Your task to perform on an android device: search for starred emails in the gmail app Image 0: 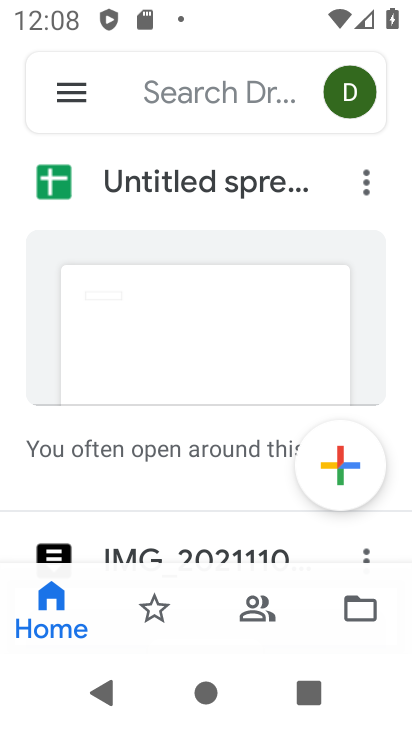
Step 0: press home button
Your task to perform on an android device: search for starred emails in the gmail app Image 1: 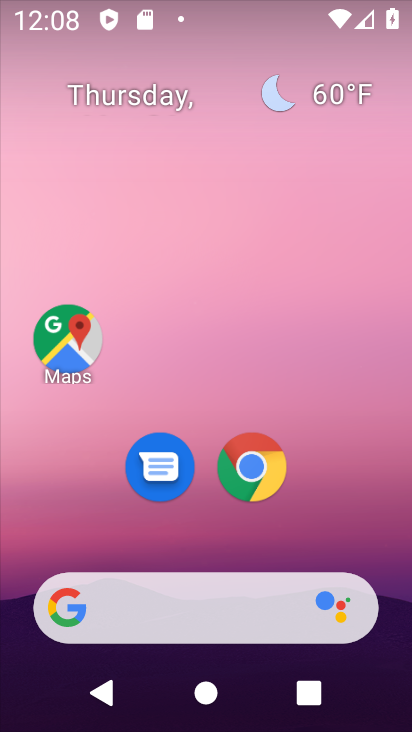
Step 1: drag from (220, 460) to (261, 105)
Your task to perform on an android device: search for starred emails in the gmail app Image 2: 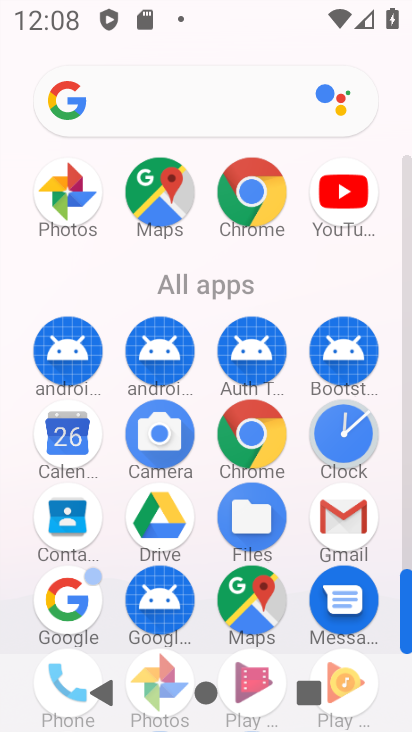
Step 2: click (343, 515)
Your task to perform on an android device: search for starred emails in the gmail app Image 3: 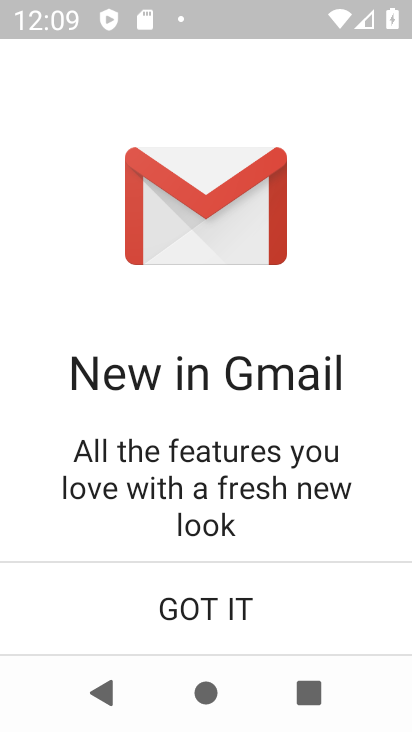
Step 3: click (243, 603)
Your task to perform on an android device: search for starred emails in the gmail app Image 4: 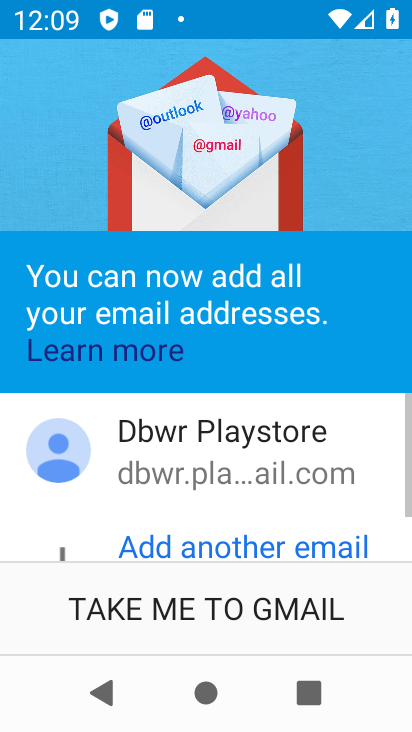
Step 4: click (239, 607)
Your task to perform on an android device: search for starred emails in the gmail app Image 5: 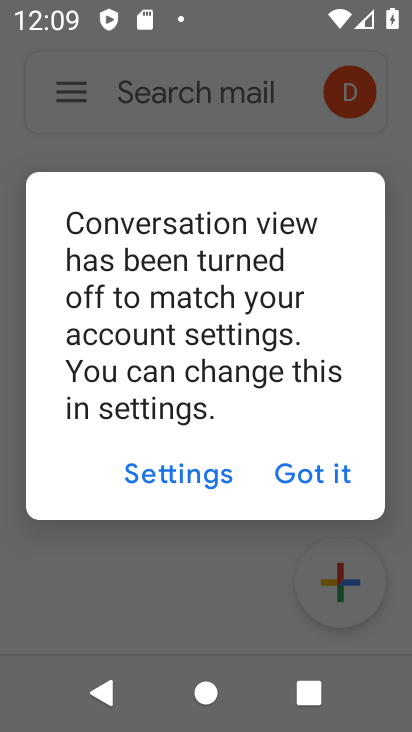
Step 5: click (330, 467)
Your task to perform on an android device: search for starred emails in the gmail app Image 6: 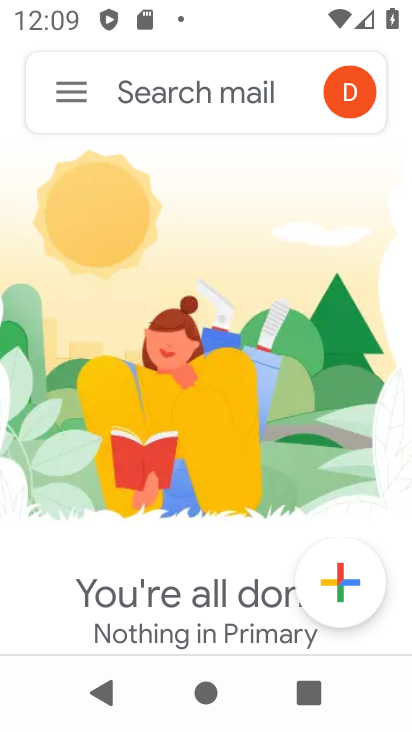
Step 6: click (83, 90)
Your task to perform on an android device: search for starred emails in the gmail app Image 7: 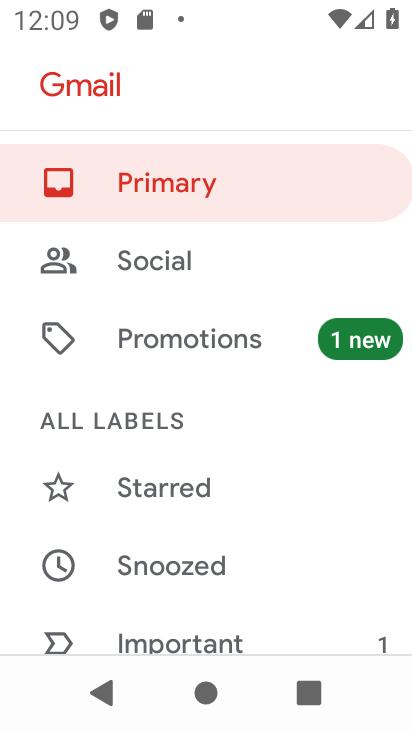
Step 7: drag from (139, 550) to (162, 469)
Your task to perform on an android device: search for starred emails in the gmail app Image 8: 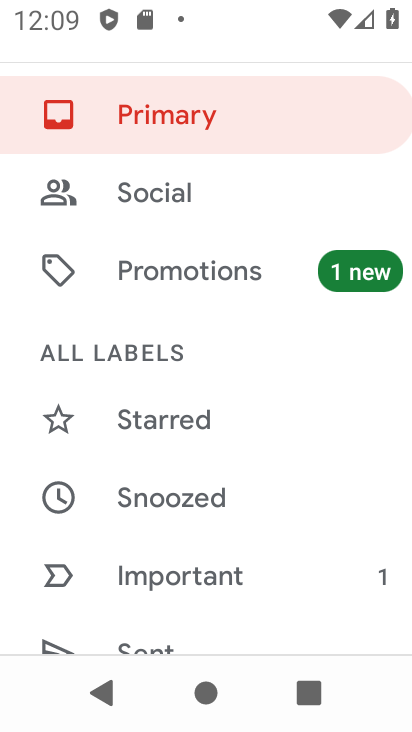
Step 8: click (148, 433)
Your task to perform on an android device: search for starred emails in the gmail app Image 9: 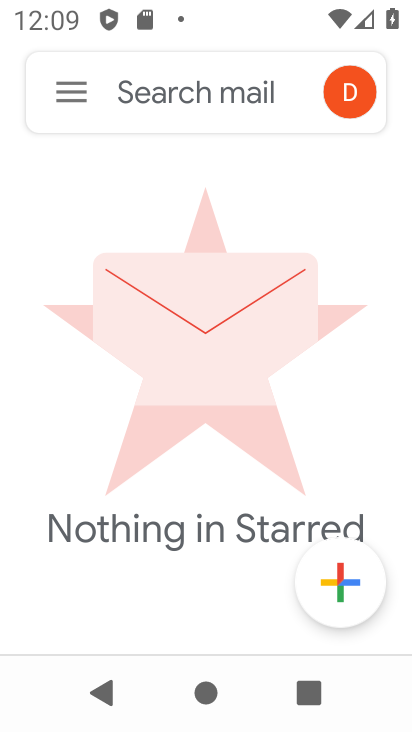
Step 9: task complete